Your task to perform on an android device: turn on the 12-hour format for clock Image 0: 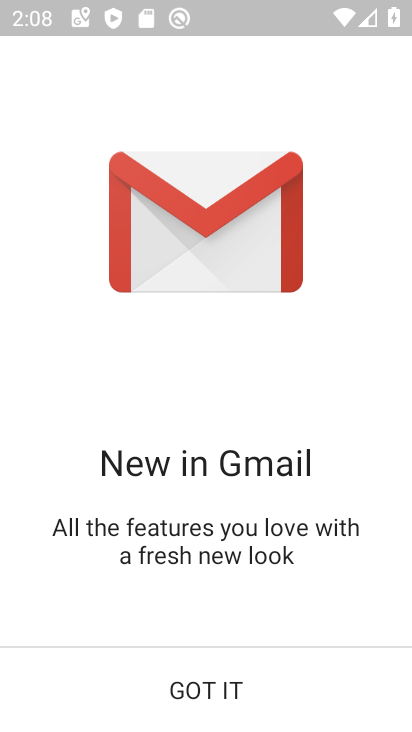
Step 0: press home button
Your task to perform on an android device: turn on the 12-hour format for clock Image 1: 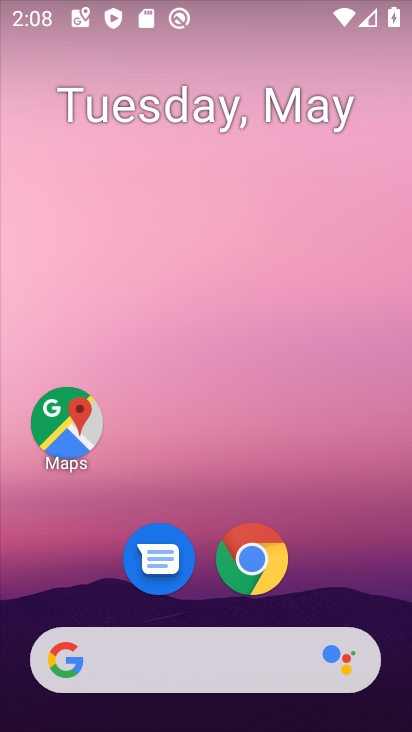
Step 1: drag from (238, 575) to (283, 186)
Your task to perform on an android device: turn on the 12-hour format for clock Image 2: 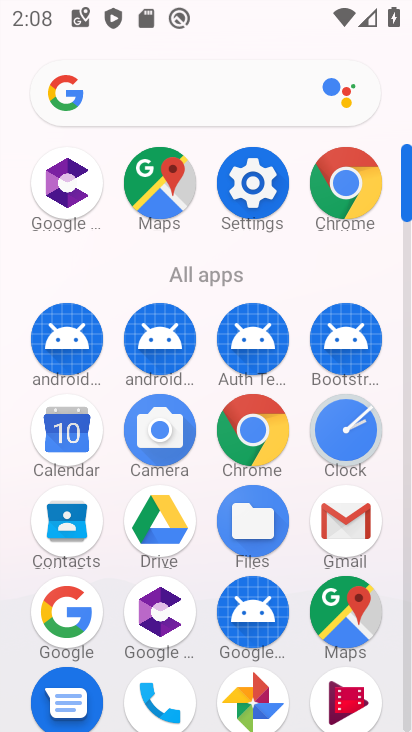
Step 2: click (343, 436)
Your task to perform on an android device: turn on the 12-hour format for clock Image 3: 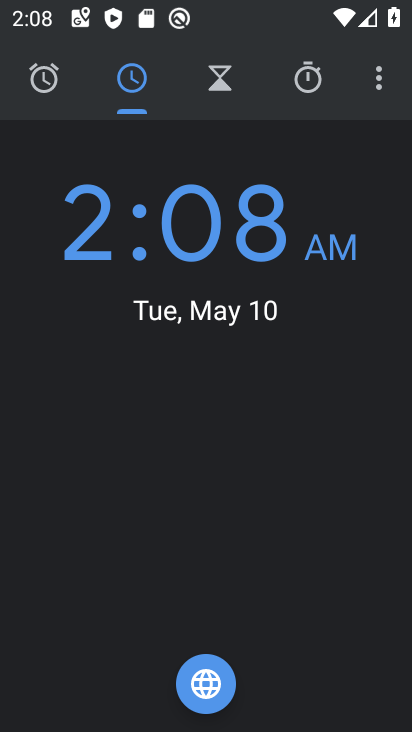
Step 3: click (379, 87)
Your task to perform on an android device: turn on the 12-hour format for clock Image 4: 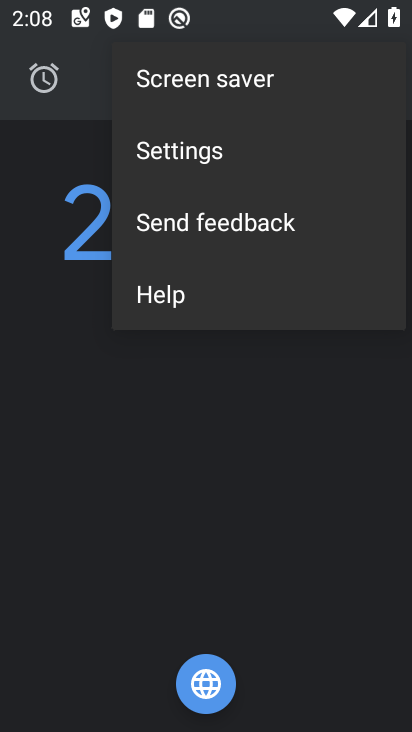
Step 4: click (204, 157)
Your task to perform on an android device: turn on the 12-hour format for clock Image 5: 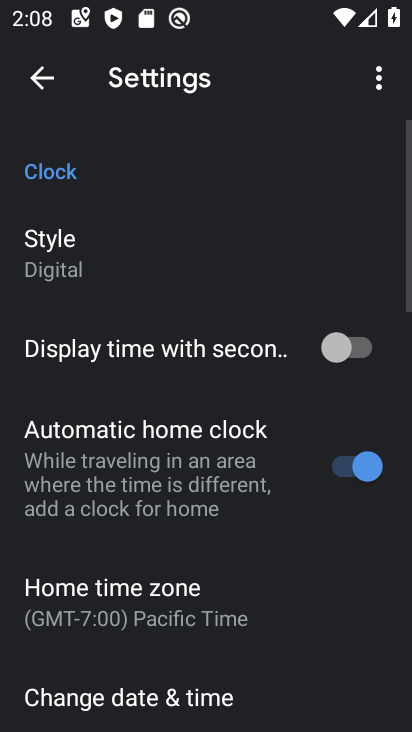
Step 5: drag from (197, 557) to (238, 226)
Your task to perform on an android device: turn on the 12-hour format for clock Image 6: 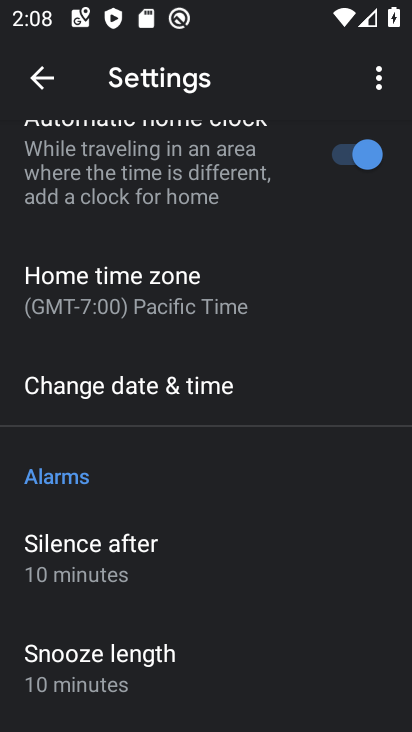
Step 6: click (181, 387)
Your task to perform on an android device: turn on the 12-hour format for clock Image 7: 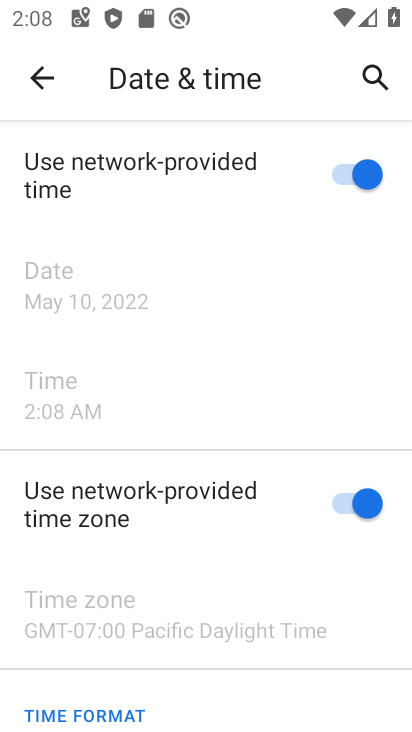
Step 7: task complete